Your task to perform on an android device: How much does a 3 bedroom apartment rent for in Boston? Image 0: 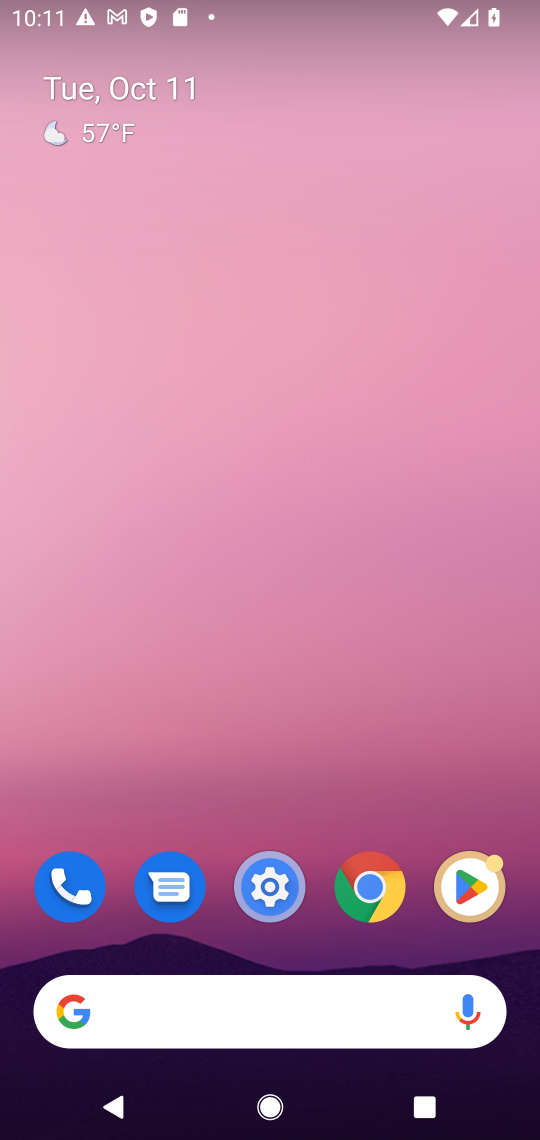
Step 0: press home button
Your task to perform on an android device: How much does a 3 bedroom apartment rent for in Boston? Image 1: 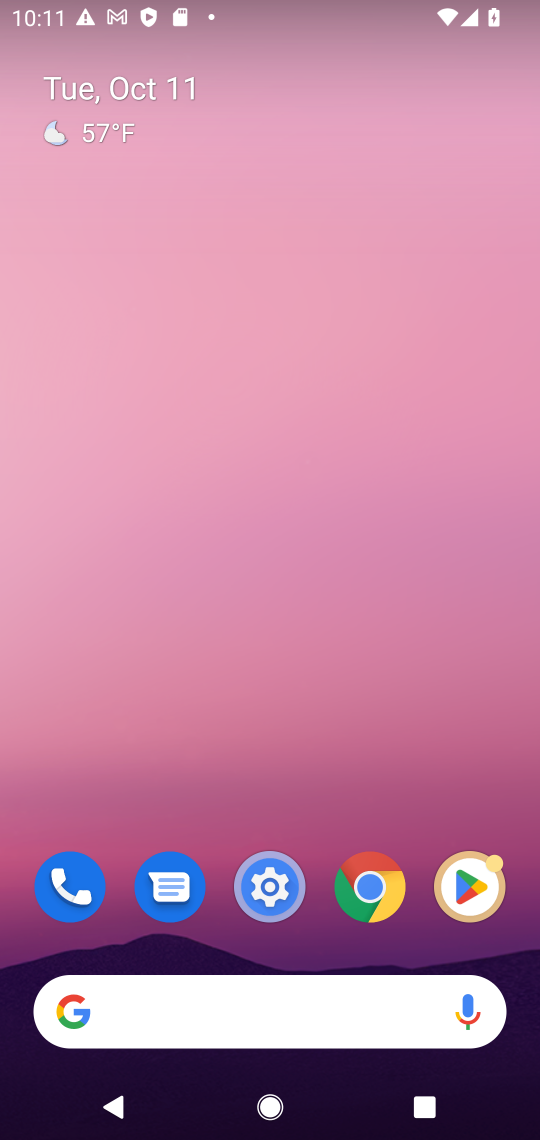
Step 1: click (216, 1023)
Your task to perform on an android device: How much does a 3 bedroom apartment rent for in Boston? Image 2: 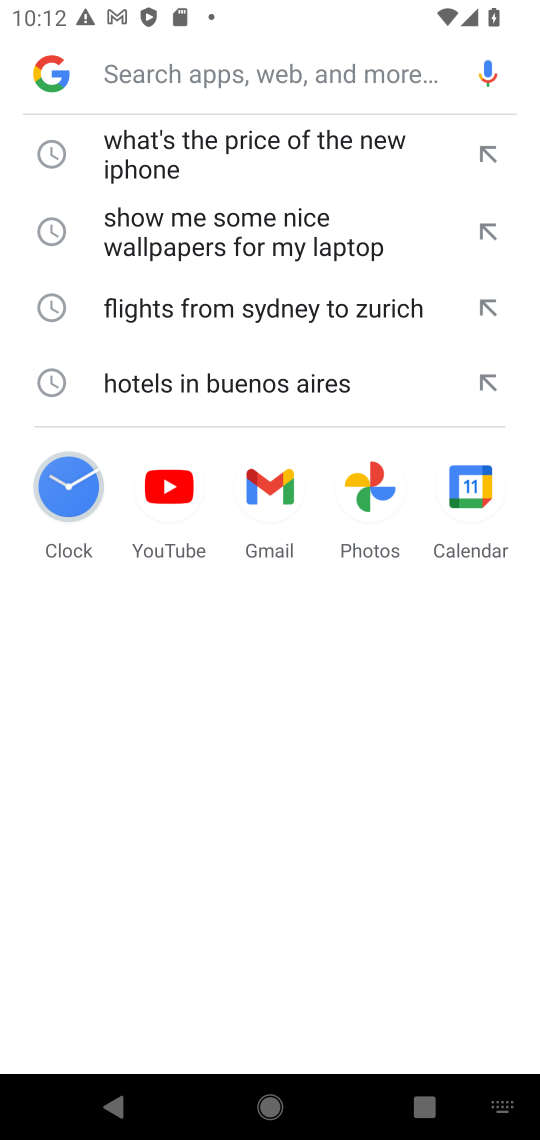
Step 2: type "3 bedroom apartment rent for in Boston"
Your task to perform on an android device: How much does a 3 bedroom apartment rent for in Boston? Image 3: 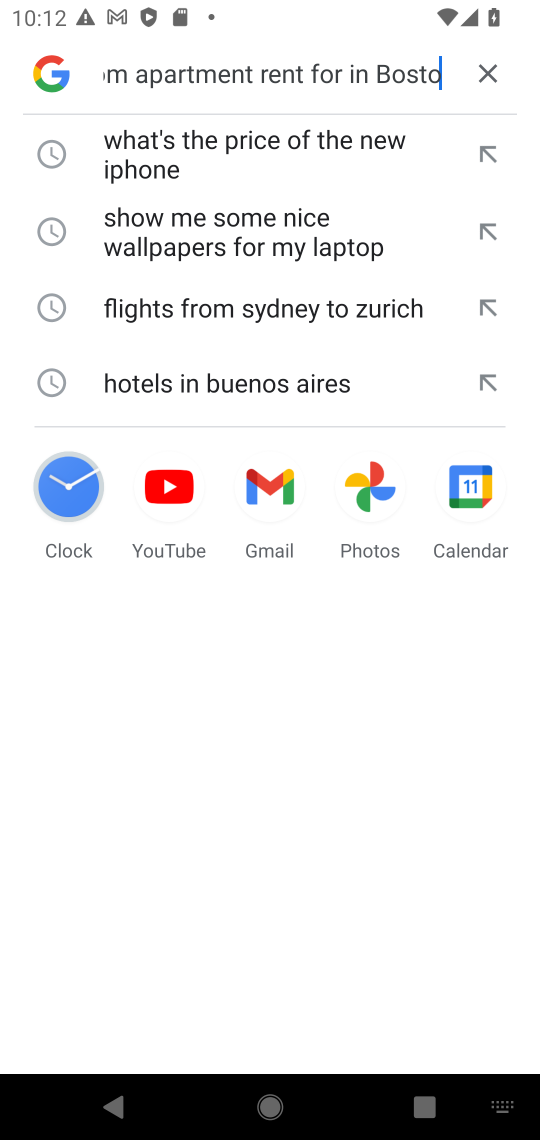
Step 3: press enter
Your task to perform on an android device: How much does a 3 bedroom apartment rent for in Boston? Image 4: 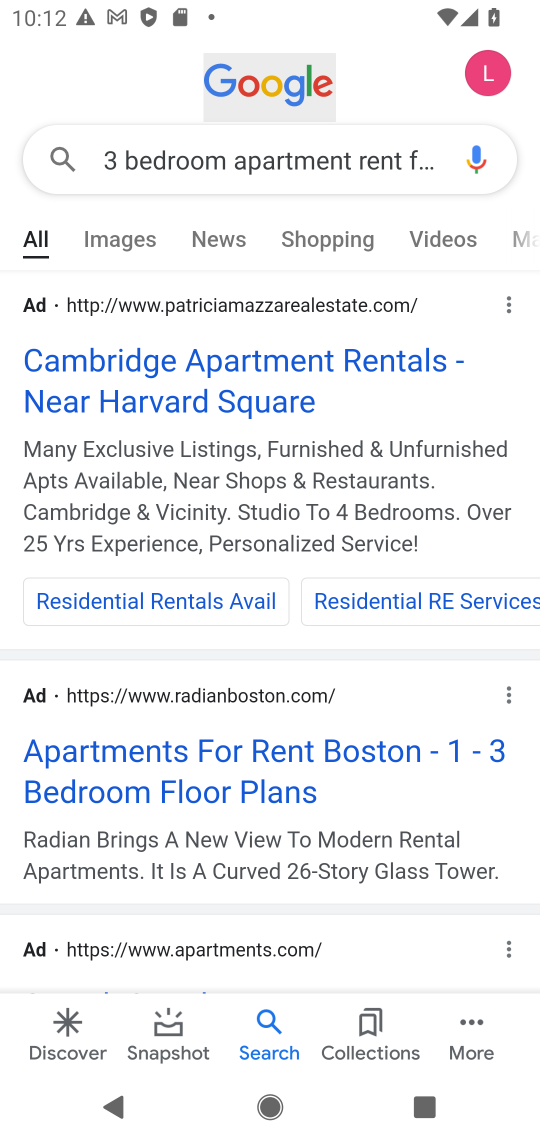
Step 4: drag from (358, 842) to (354, 496)
Your task to perform on an android device: How much does a 3 bedroom apartment rent for in Boston? Image 5: 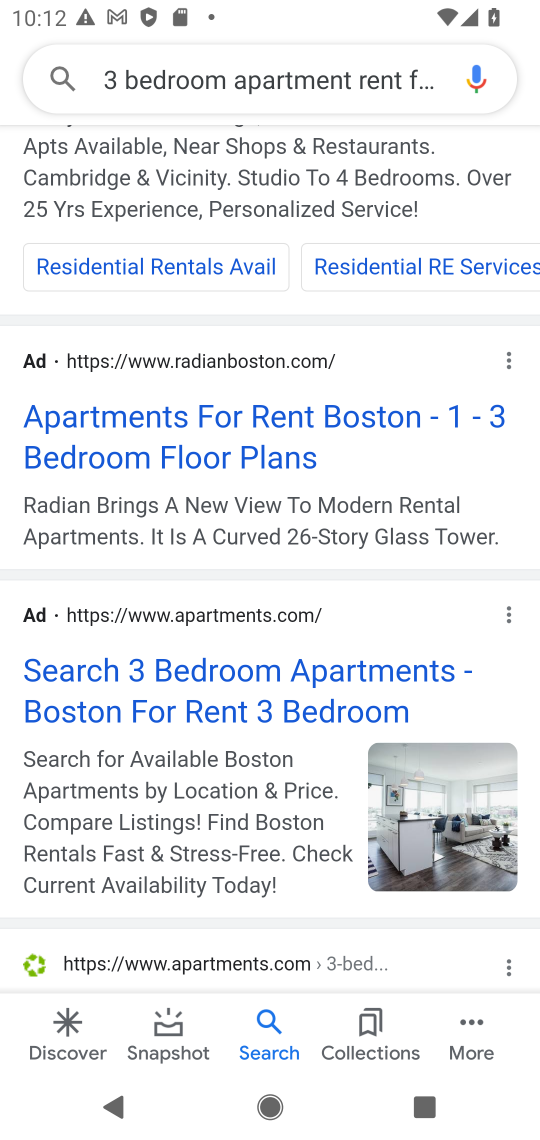
Step 5: click (214, 705)
Your task to perform on an android device: How much does a 3 bedroom apartment rent for in Boston? Image 6: 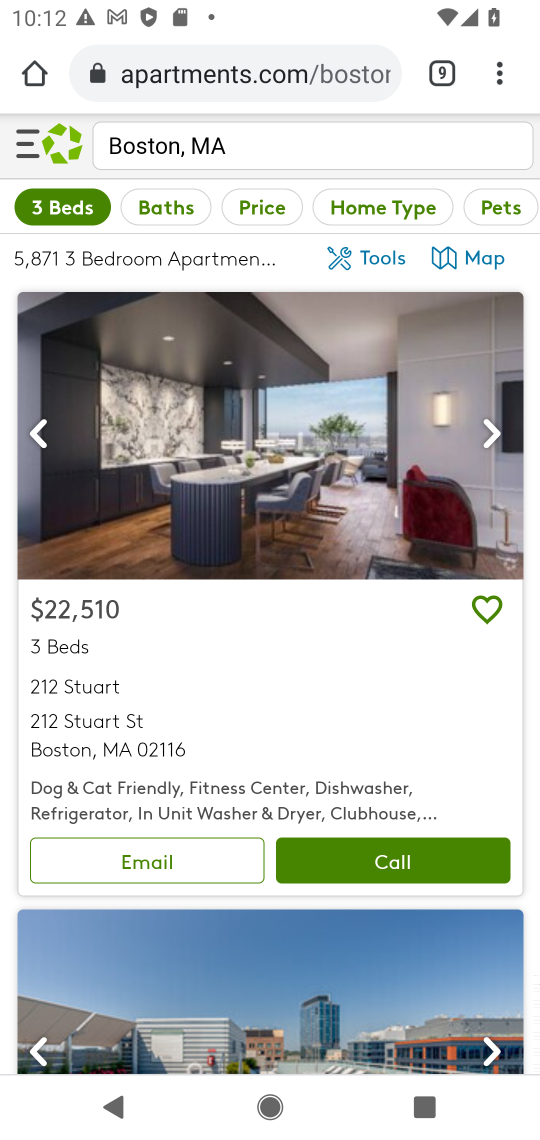
Step 6: task complete